Your task to perform on an android device: toggle show notifications on the lock screen Image 0: 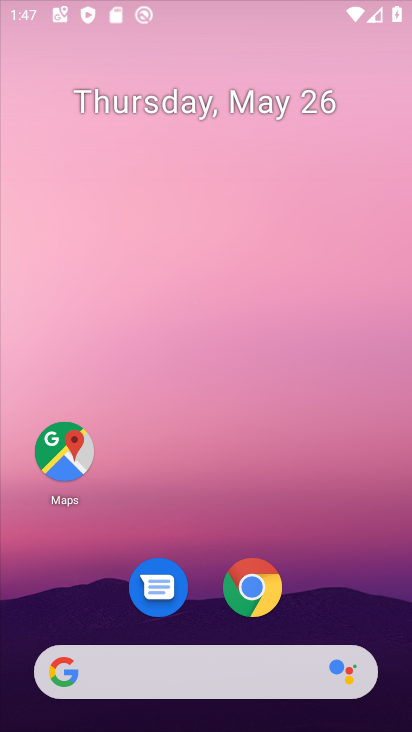
Step 0: drag from (307, 456) to (254, 88)
Your task to perform on an android device: toggle show notifications on the lock screen Image 1: 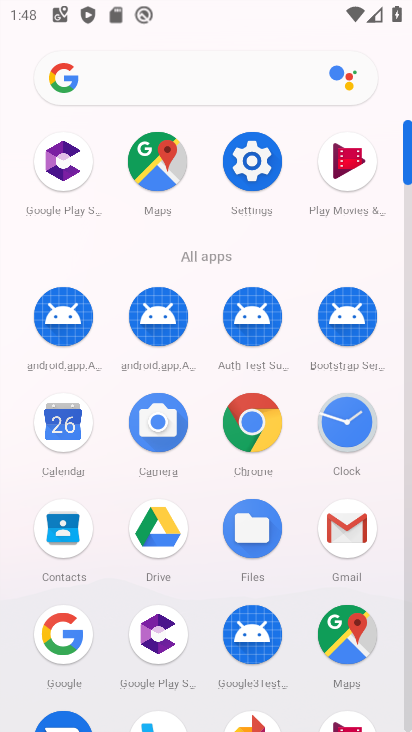
Step 1: click (246, 163)
Your task to perform on an android device: toggle show notifications on the lock screen Image 2: 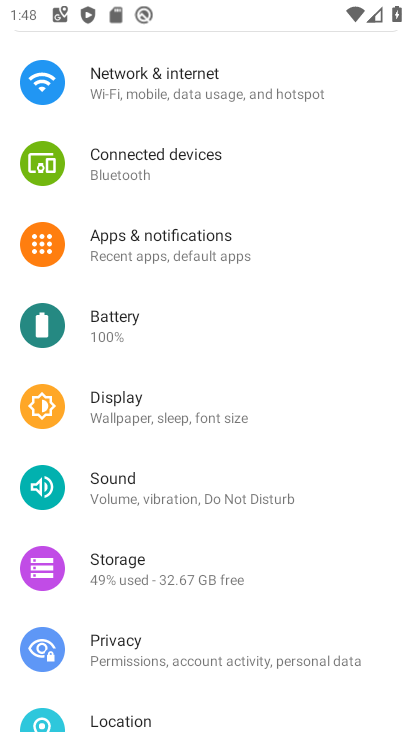
Step 2: click (150, 237)
Your task to perform on an android device: toggle show notifications on the lock screen Image 3: 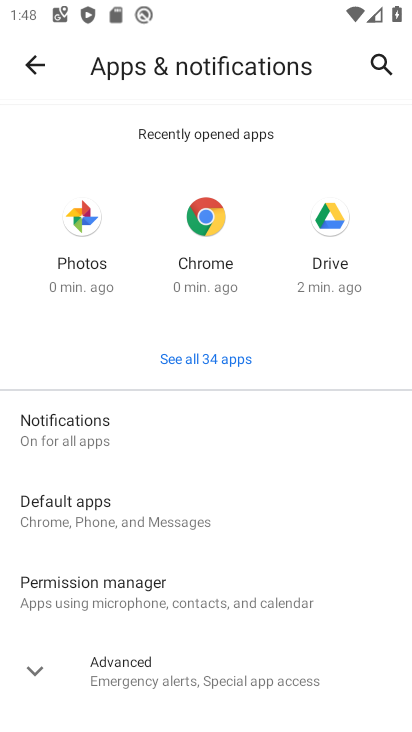
Step 3: click (72, 439)
Your task to perform on an android device: toggle show notifications on the lock screen Image 4: 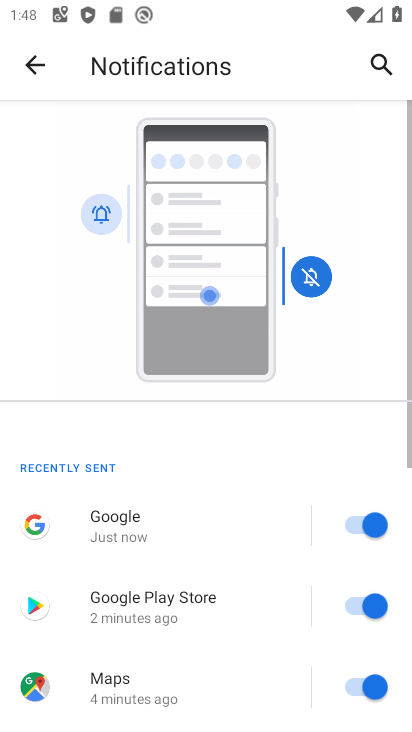
Step 4: drag from (161, 574) to (229, 63)
Your task to perform on an android device: toggle show notifications on the lock screen Image 5: 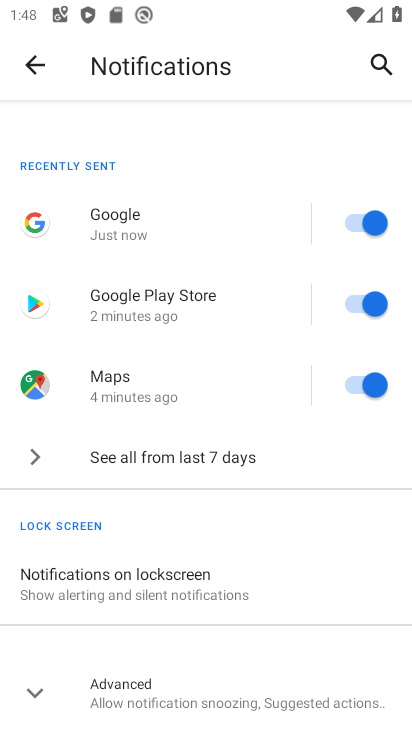
Step 5: click (147, 589)
Your task to perform on an android device: toggle show notifications on the lock screen Image 6: 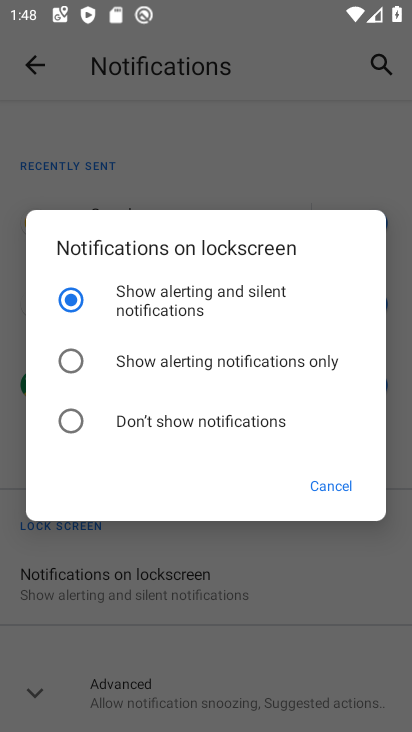
Step 6: click (200, 354)
Your task to perform on an android device: toggle show notifications on the lock screen Image 7: 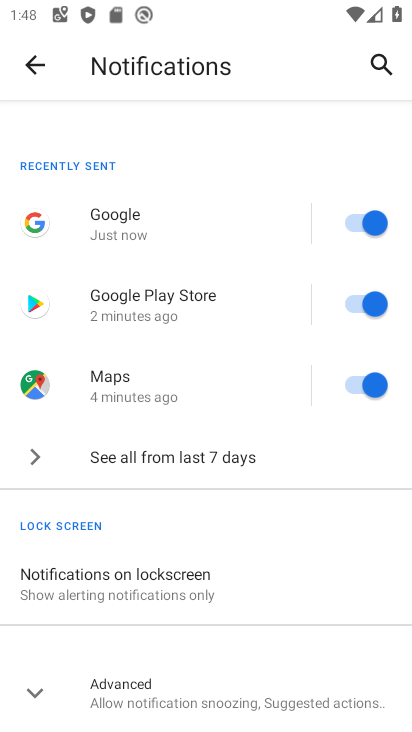
Step 7: task complete